Your task to perform on an android device: uninstall "Move to iOS" Image 0: 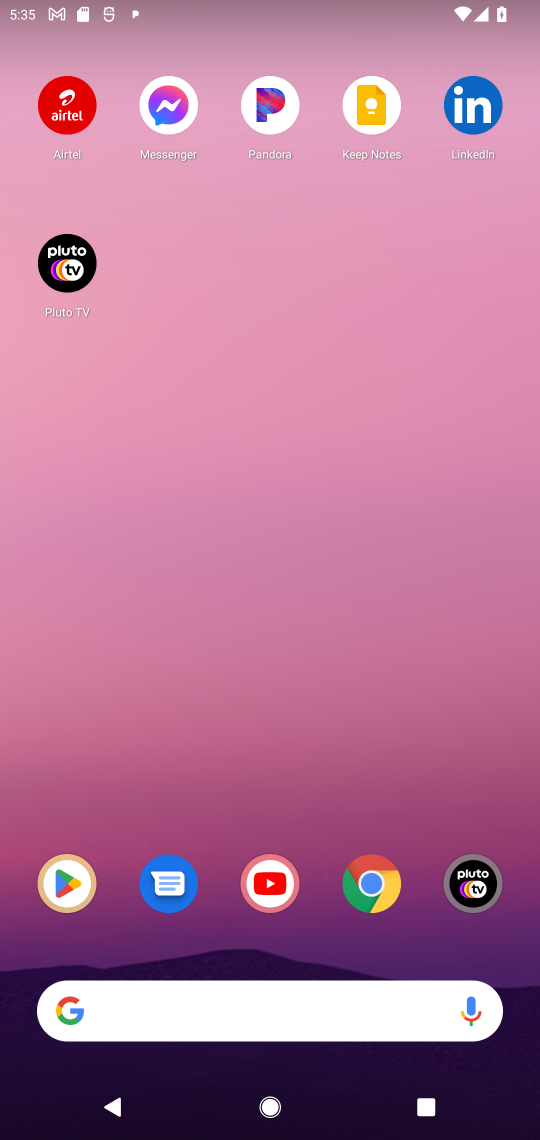
Step 0: drag from (218, 734) to (7, 0)
Your task to perform on an android device: uninstall "Move to iOS" Image 1: 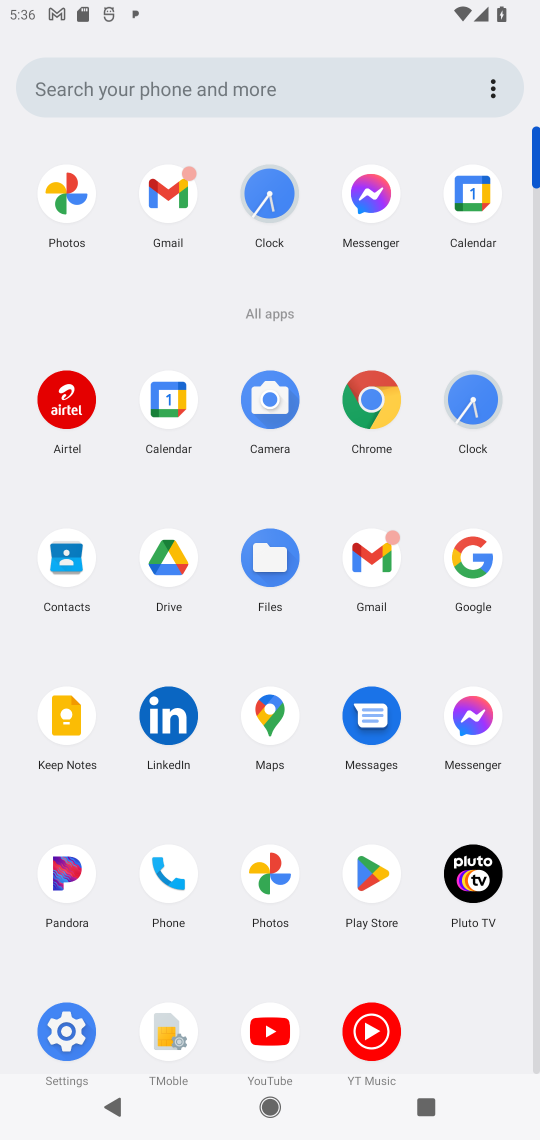
Step 1: click (388, 876)
Your task to perform on an android device: uninstall "Move to iOS" Image 2: 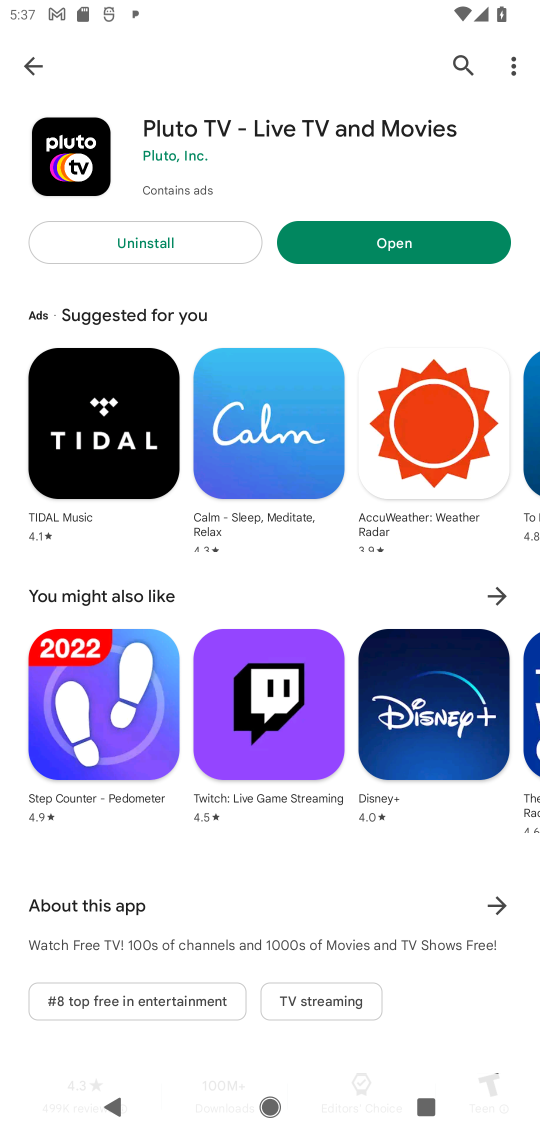
Step 2: click (26, 64)
Your task to perform on an android device: uninstall "Move to iOS" Image 3: 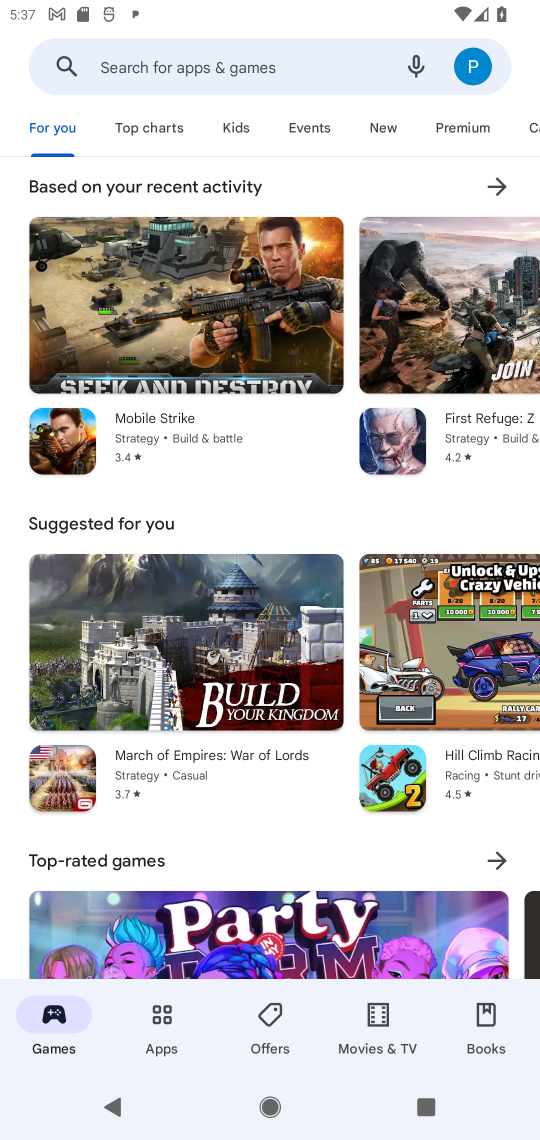
Step 3: click (210, 61)
Your task to perform on an android device: uninstall "Move to iOS" Image 4: 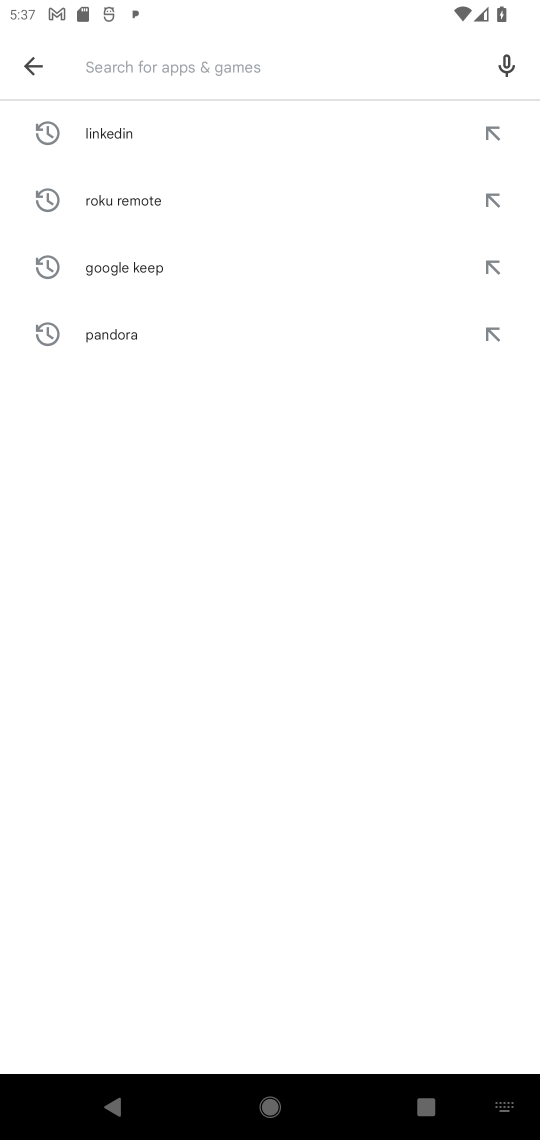
Step 4: type "Move to iOS"
Your task to perform on an android device: uninstall "Move to iOS" Image 5: 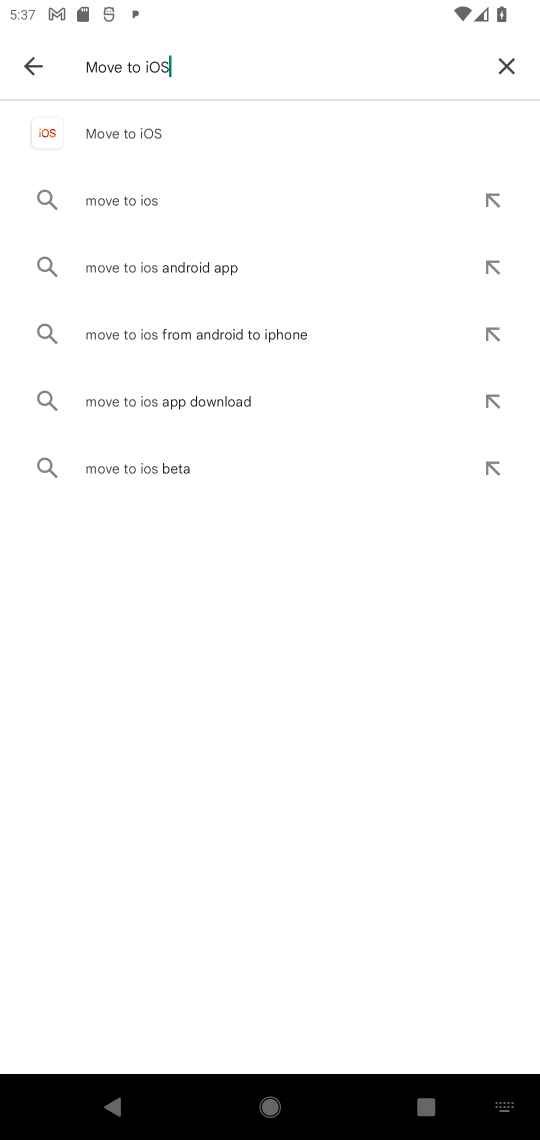
Step 5: click (104, 132)
Your task to perform on an android device: uninstall "Move to iOS" Image 6: 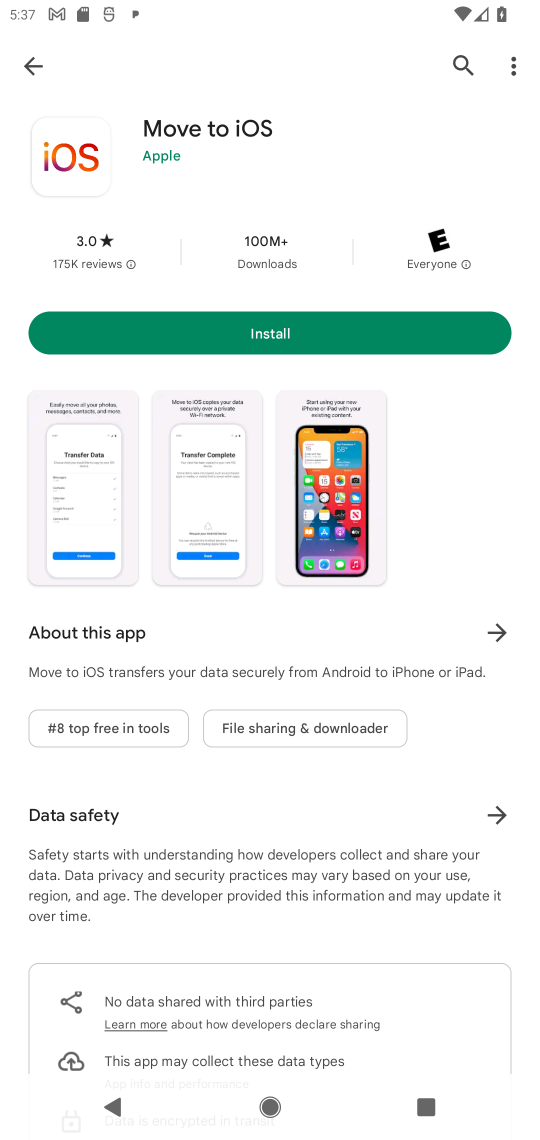
Step 6: task complete